Your task to perform on an android device: check out phone information Image 0: 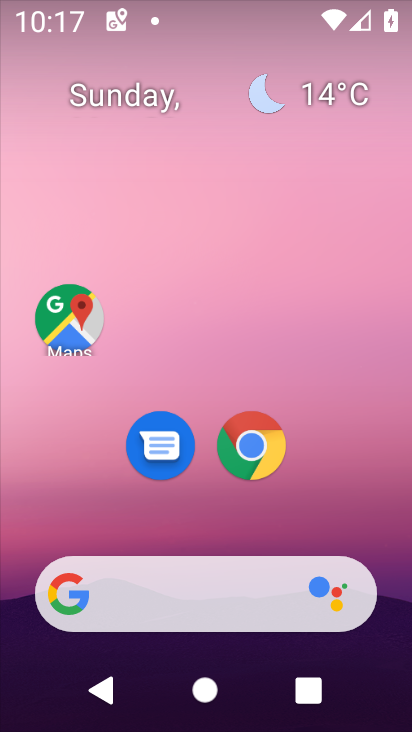
Step 0: drag from (181, 535) to (303, 147)
Your task to perform on an android device: check out phone information Image 1: 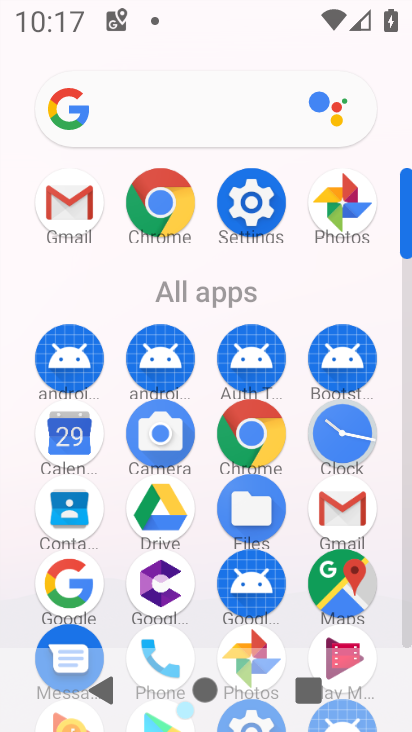
Step 1: click (253, 199)
Your task to perform on an android device: check out phone information Image 2: 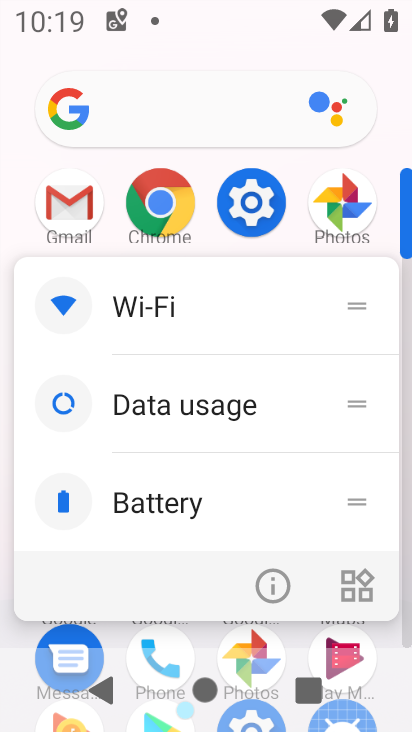
Step 2: click (275, 578)
Your task to perform on an android device: check out phone information Image 3: 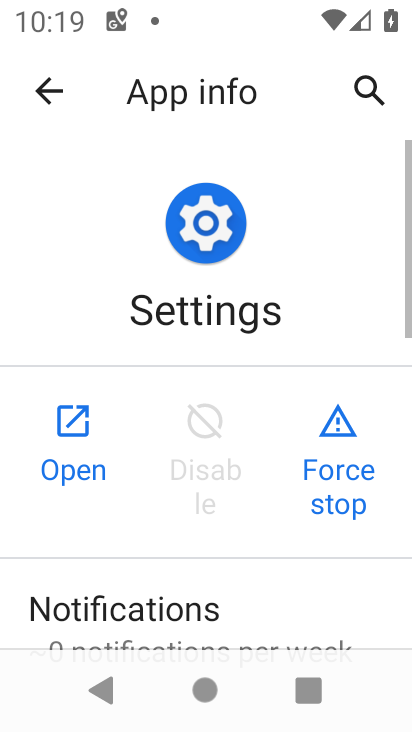
Step 3: drag from (197, 522) to (251, 158)
Your task to perform on an android device: check out phone information Image 4: 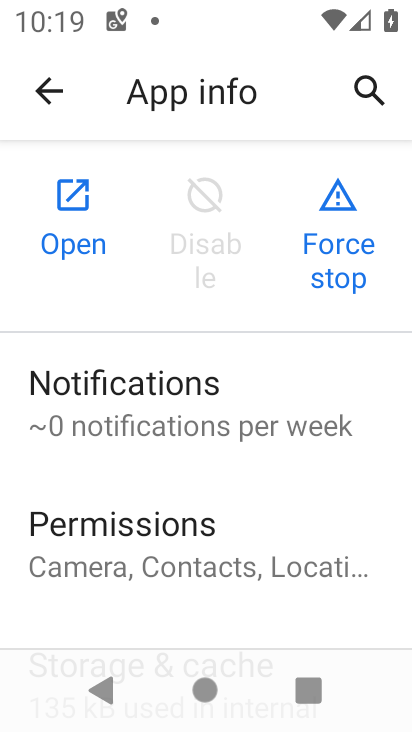
Step 4: click (61, 228)
Your task to perform on an android device: check out phone information Image 5: 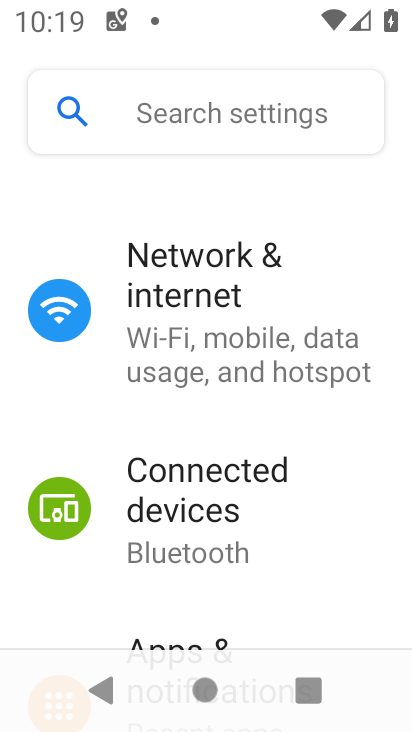
Step 5: drag from (230, 450) to (312, 1)
Your task to perform on an android device: check out phone information Image 6: 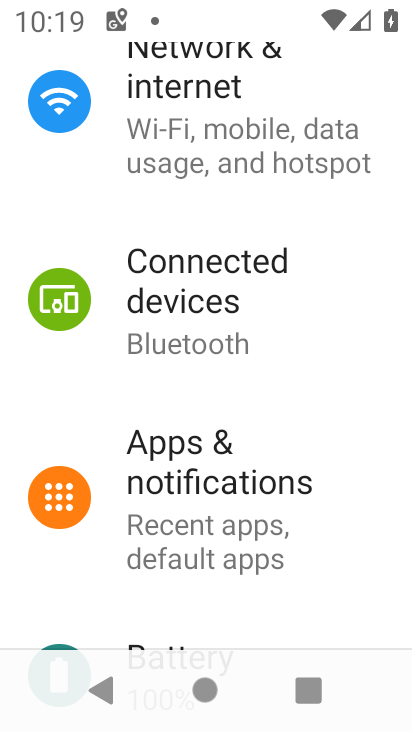
Step 6: drag from (206, 563) to (228, 17)
Your task to perform on an android device: check out phone information Image 7: 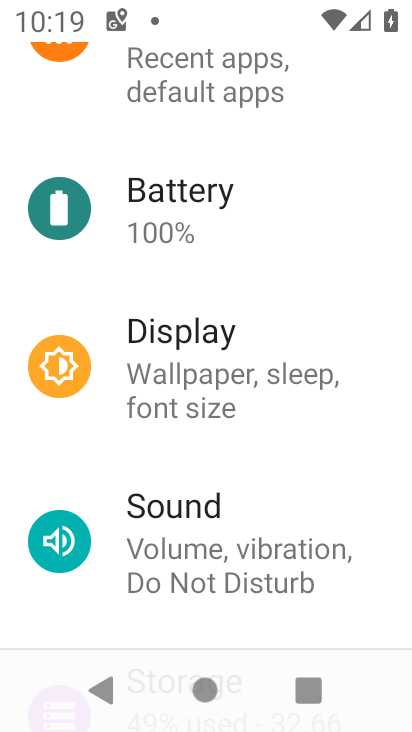
Step 7: drag from (176, 563) to (210, 126)
Your task to perform on an android device: check out phone information Image 8: 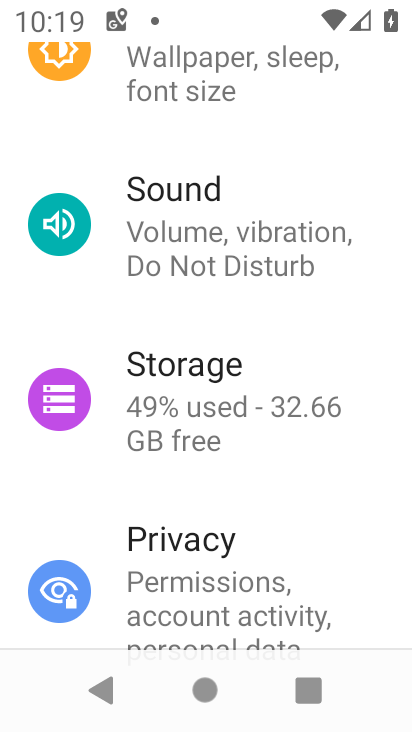
Step 8: drag from (212, 598) to (268, 4)
Your task to perform on an android device: check out phone information Image 9: 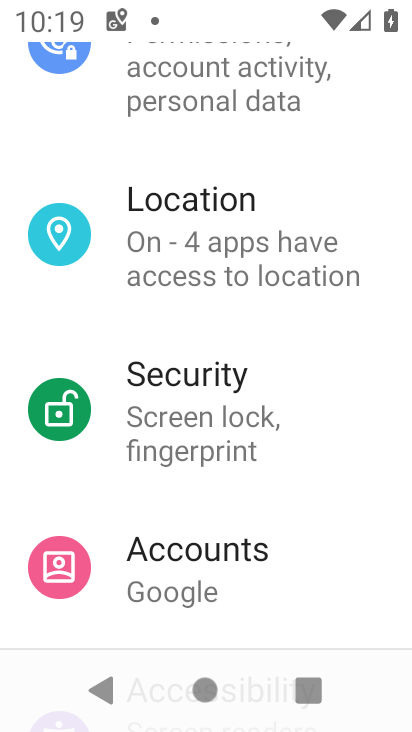
Step 9: drag from (193, 580) to (259, 26)
Your task to perform on an android device: check out phone information Image 10: 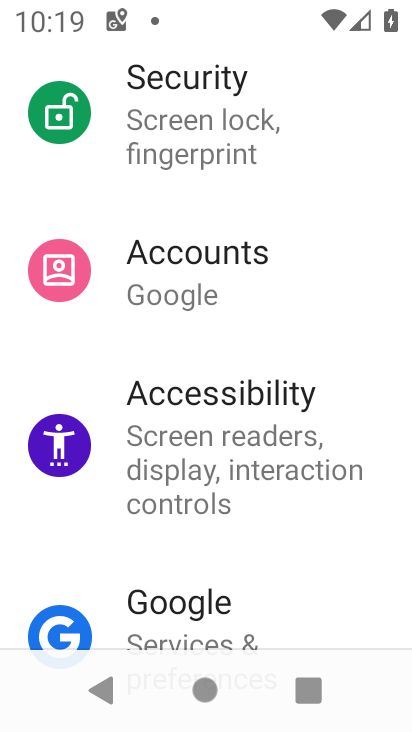
Step 10: drag from (206, 584) to (278, 103)
Your task to perform on an android device: check out phone information Image 11: 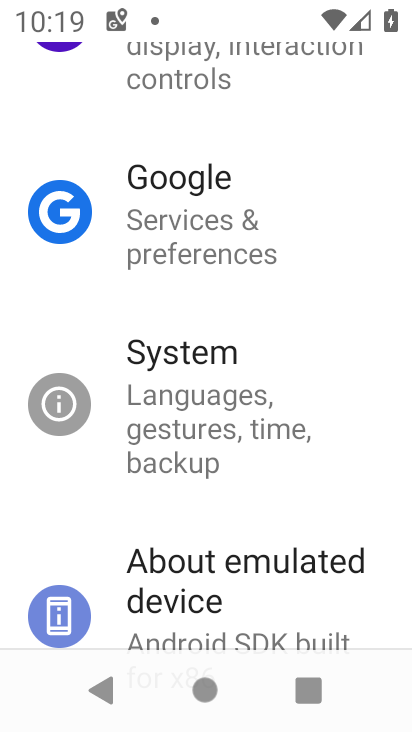
Step 11: drag from (233, 551) to (302, 148)
Your task to perform on an android device: check out phone information Image 12: 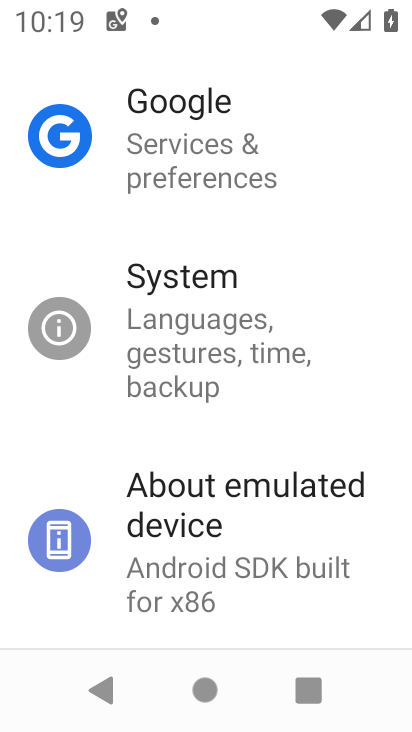
Step 12: click (196, 545)
Your task to perform on an android device: check out phone information Image 13: 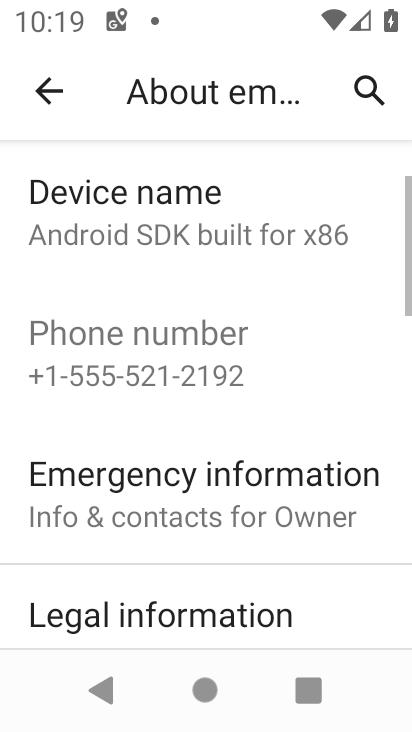
Step 13: task complete